Your task to perform on an android device: What's on my calendar tomorrow? Image 0: 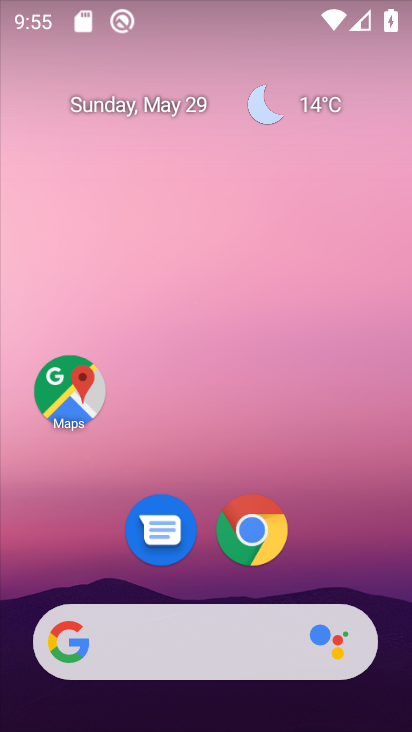
Step 0: drag from (153, 614) to (181, 51)
Your task to perform on an android device: What's on my calendar tomorrow? Image 1: 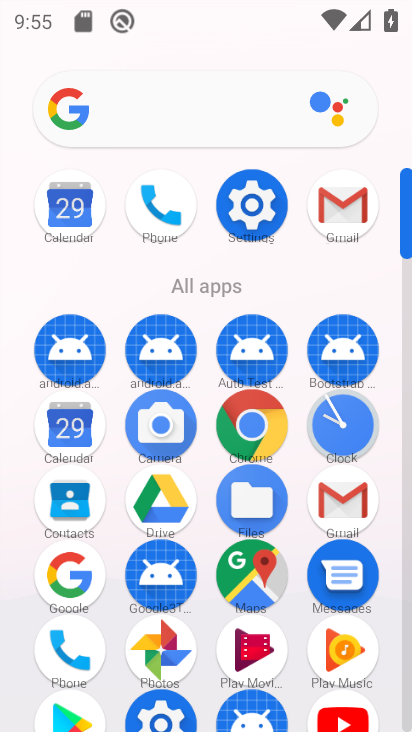
Step 1: click (67, 431)
Your task to perform on an android device: What's on my calendar tomorrow? Image 2: 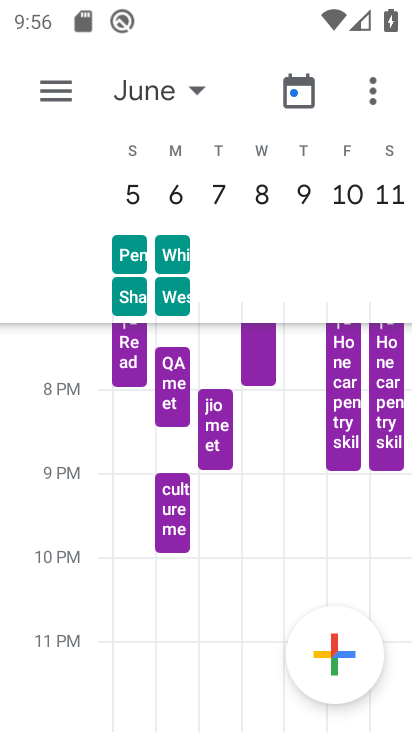
Step 2: click (61, 93)
Your task to perform on an android device: What's on my calendar tomorrow? Image 3: 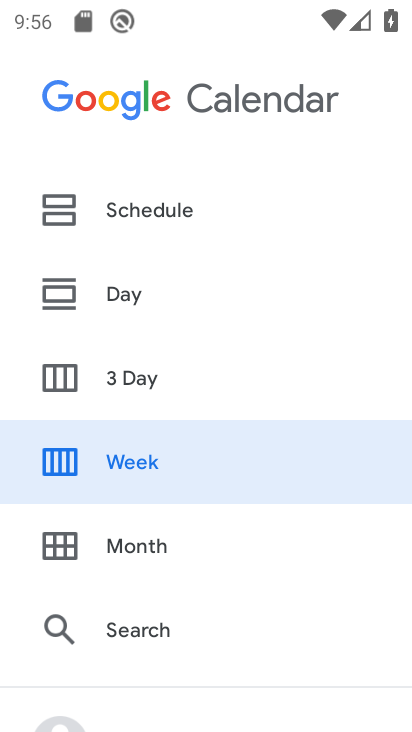
Step 3: click (143, 197)
Your task to perform on an android device: What's on my calendar tomorrow? Image 4: 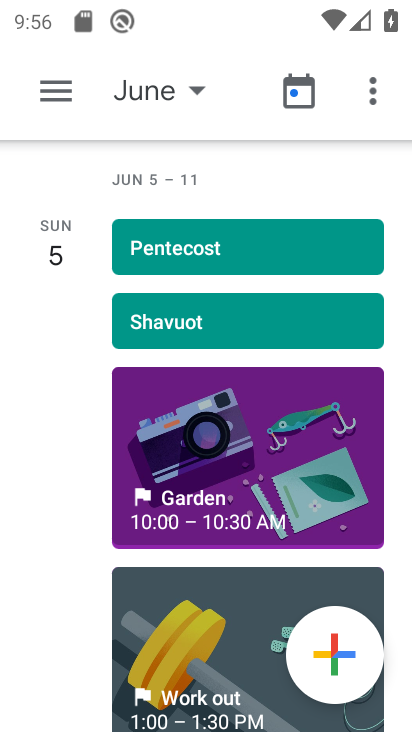
Step 4: click (170, 83)
Your task to perform on an android device: What's on my calendar tomorrow? Image 5: 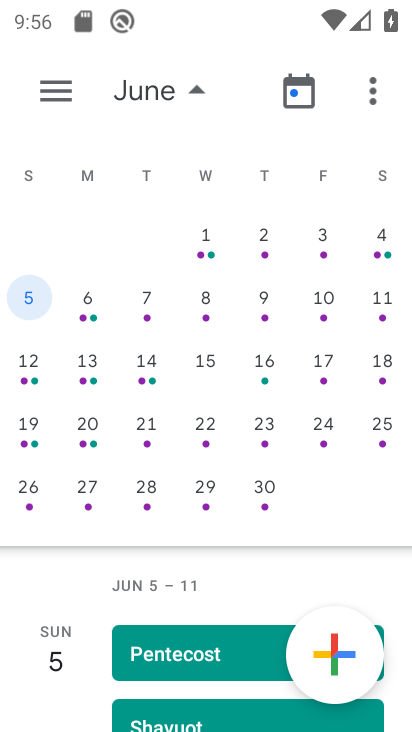
Step 5: drag from (58, 366) to (409, 307)
Your task to perform on an android device: What's on my calendar tomorrow? Image 6: 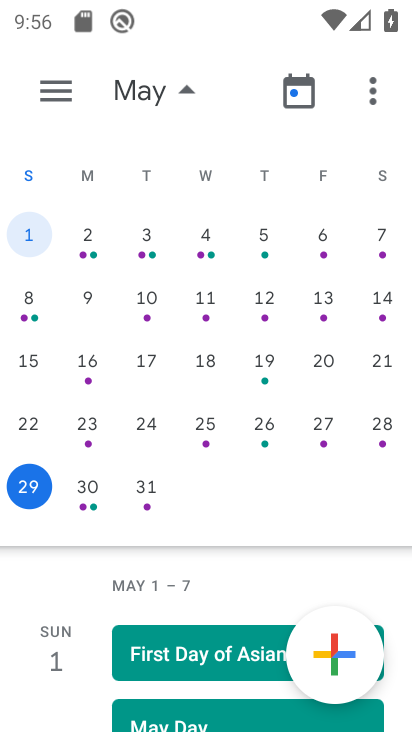
Step 6: click (84, 478)
Your task to perform on an android device: What's on my calendar tomorrow? Image 7: 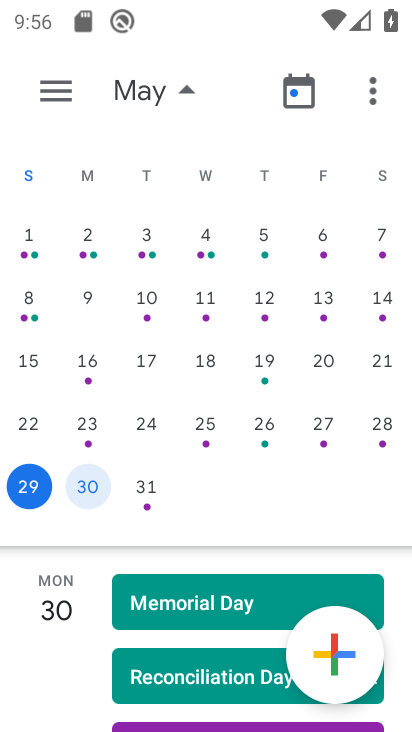
Step 7: click (185, 92)
Your task to perform on an android device: What's on my calendar tomorrow? Image 8: 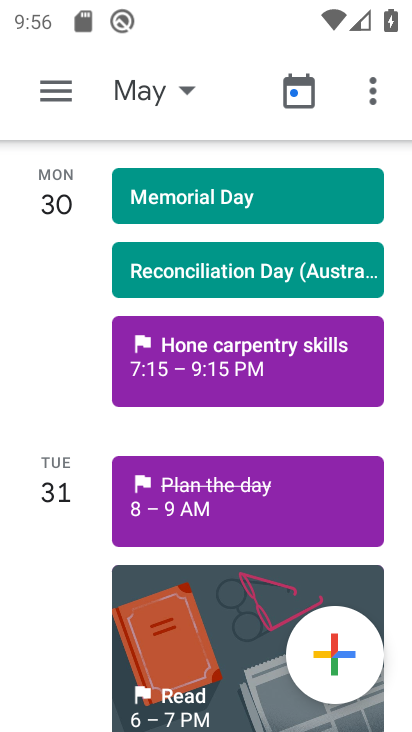
Step 8: task complete